Your task to perform on an android device: find photos in the google photos app Image 0: 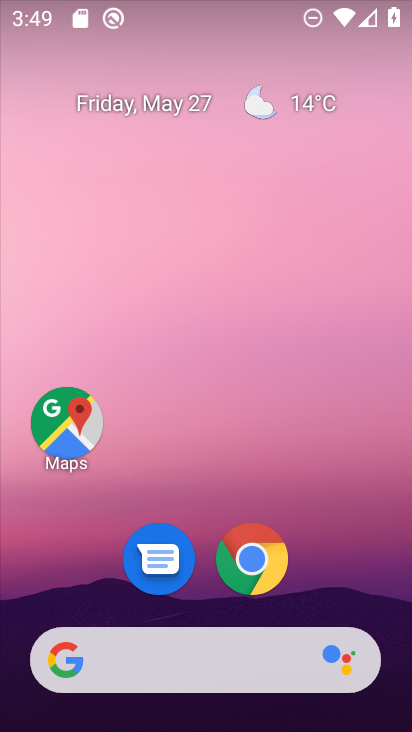
Step 0: drag from (345, 569) to (304, 100)
Your task to perform on an android device: find photos in the google photos app Image 1: 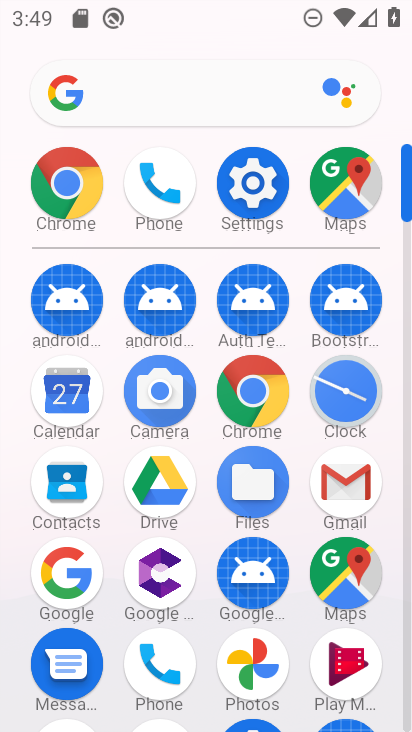
Step 1: drag from (291, 588) to (306, 355)
Your task to perform on an android device: find photos in the google photos app Image 2: 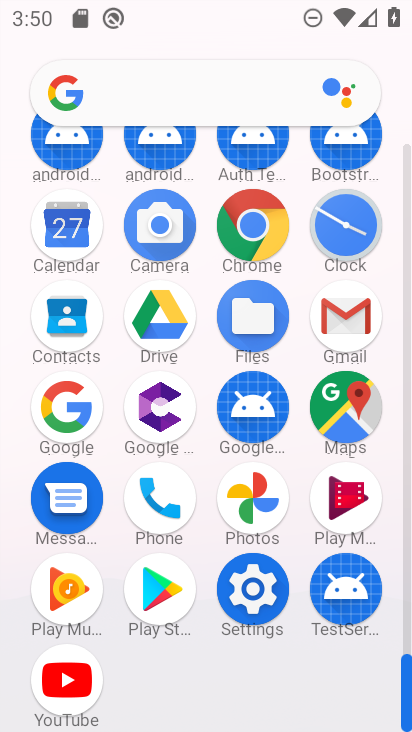
Step 2: click (268, 497)
Your task to perform on an android device: find photos in the google photos app Image 3: 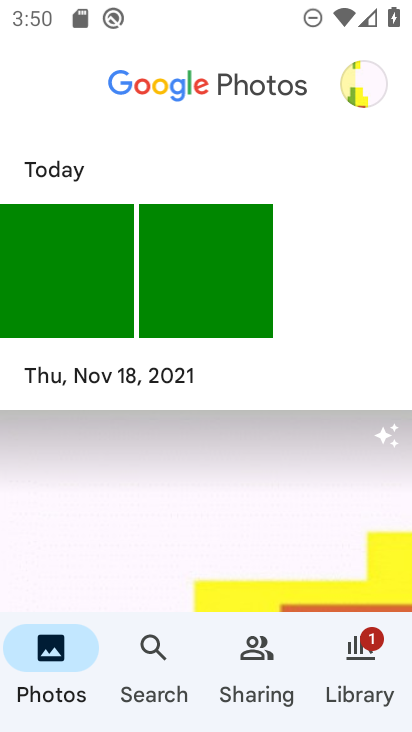
Step 3: task complete